Your task to perform on an android device: toggle notifications settings in the gmail app Image 0: 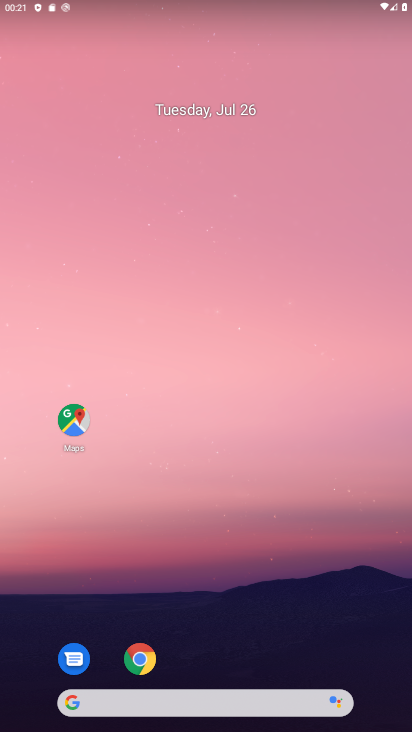
Step 0: drag from (262, 599) to (242, 18)
Your task to perform on an android device: toggle notifications settings in the gmail app Image 1: 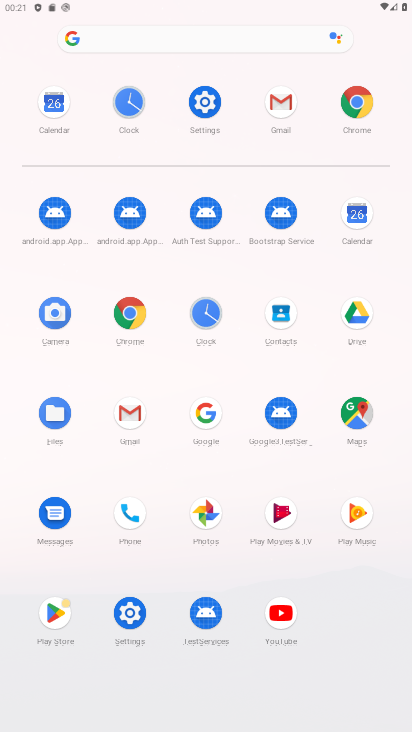
Step 1: click (279, 105)
Your task to perform on an android device: toggle notifications settings in the gmail app Image 2: 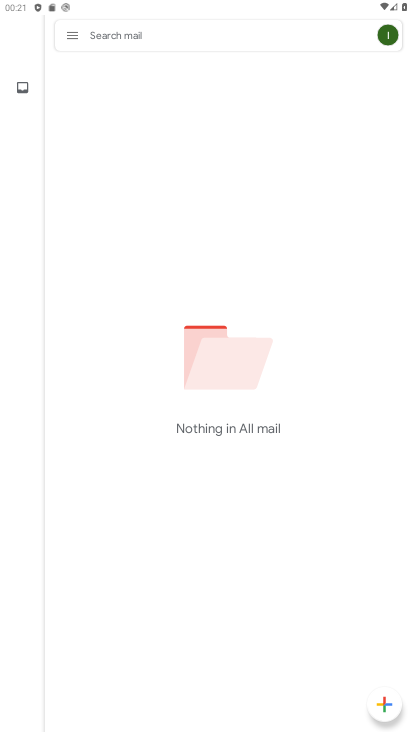
Step 2: click (66, 40)
Your task to perform on an android device: toggle notifications settings in the gmail app Image 3: 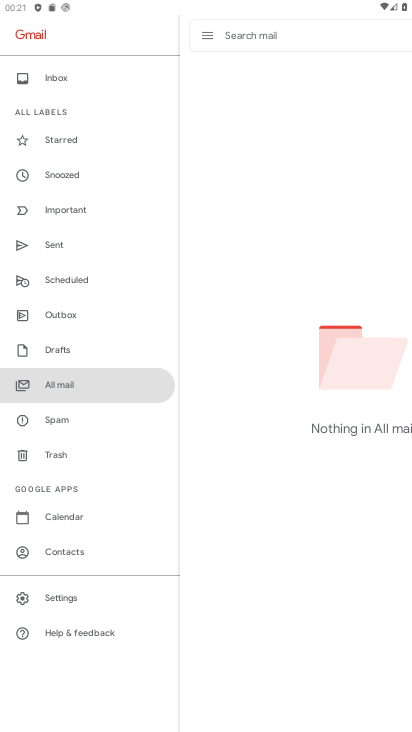
Step 3: click (78, 591)
Your task to perform on an android device: toggle notifications settings in the gmail app Image 4: 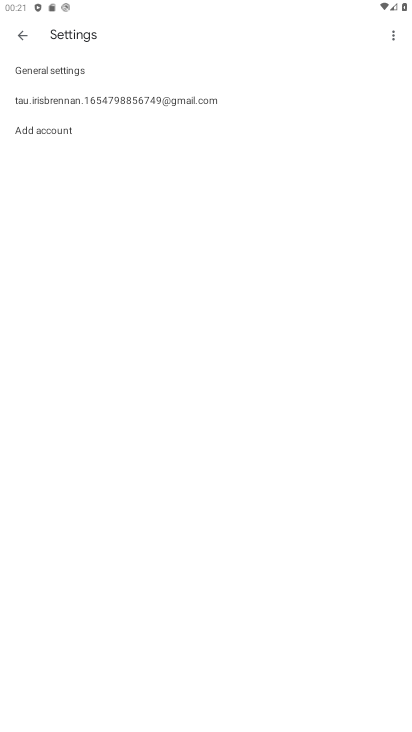
Step 4: click (147, 92)
Your task to perform on an android device: toggle notifications settings in the gmail app Image 5: 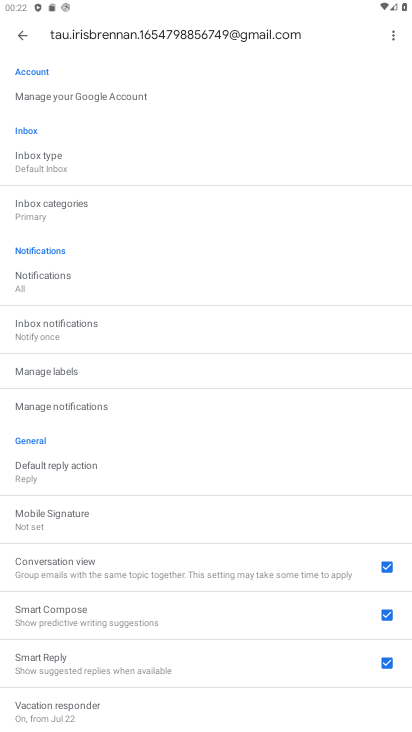
Step 5: click (91, 404)
Your task to perform on an android device: toggle notifications settings in the gmail app Image 6: 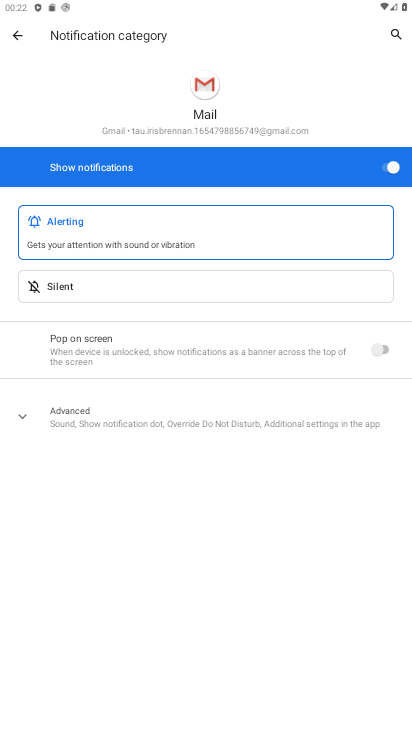
Step 6: click (378, 168)
Your task to perform on an android device: toggle notifications settings in the gmail app Image 7: 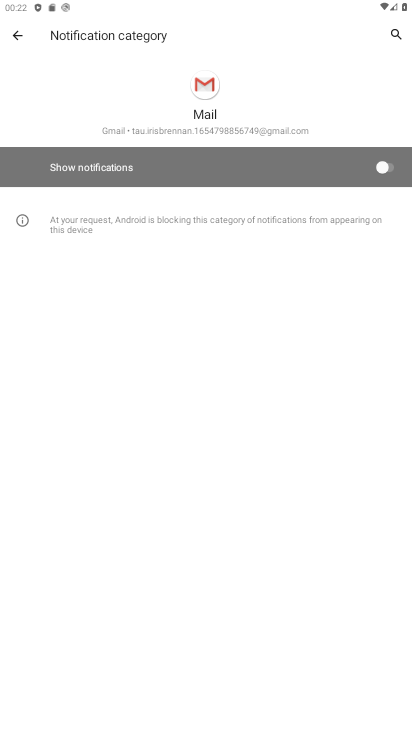
Step 7: task complete